Your task to perform on an android device: turn notification dots on Image 0: 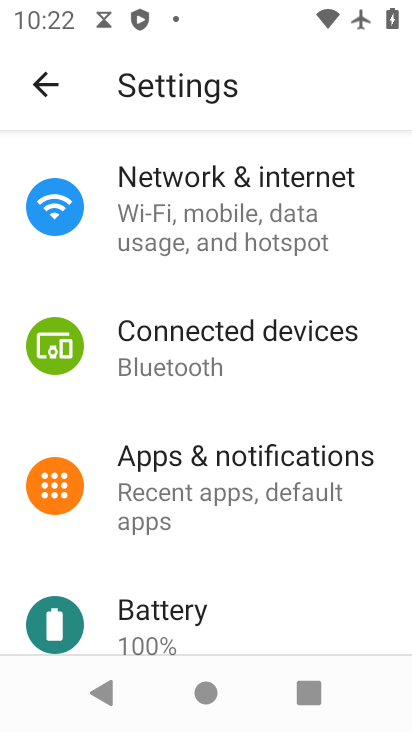
Step 0: click (240, 484)
Your task to perform on an android device: turn notification dots on Image 1: 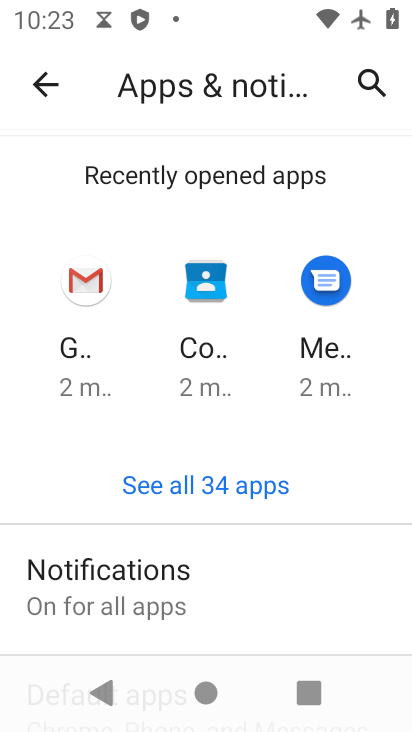
Step 1: click (153, 573)
Your task to perform on an android device: turn notification dots on Image 2: 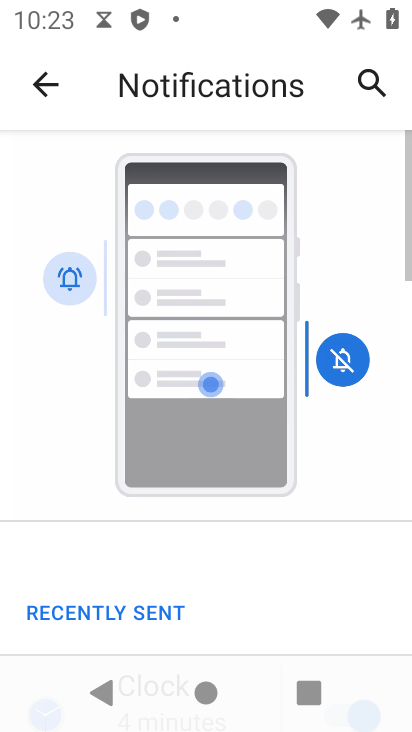
Step 2: drag from (281, 605) to (269, 150)
Your task to perform on an android device: turn notification dots on Image 3: 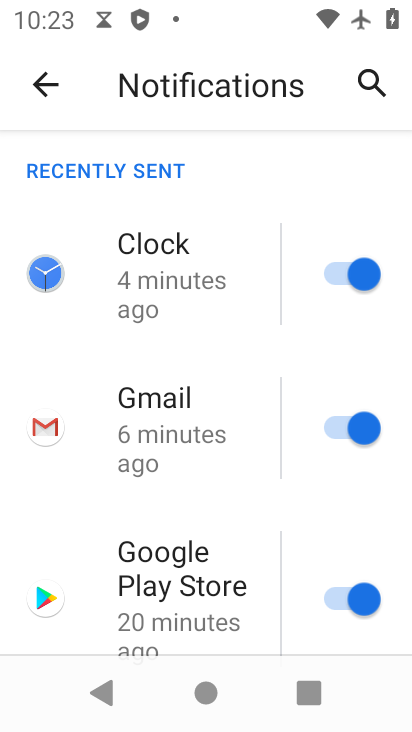
Step 3: drag from (197, 598) to (226, 177)
Your task to perform on an android device: turn notification dots on Image 4: 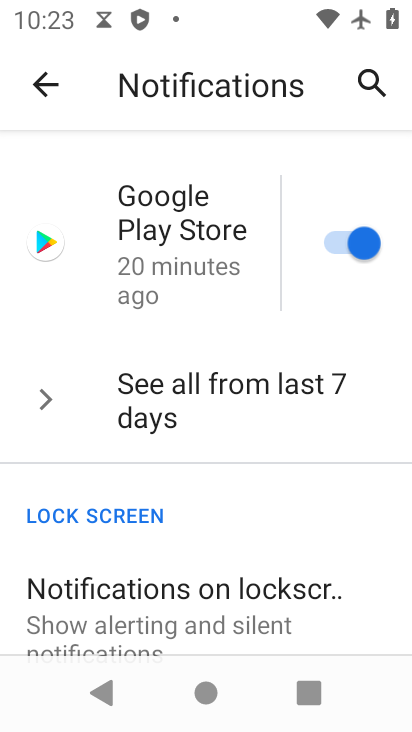
Step 4: drag from (192, 551) to (240, 170)
Your task to perform on an android device: turn notification dots on Image 5: 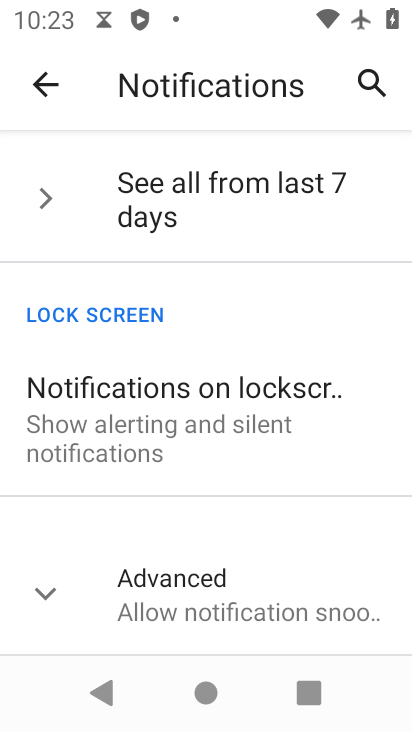
Step 5: click (228, 612)
Your task to perform on an android device: turn notification dots on Image 6: 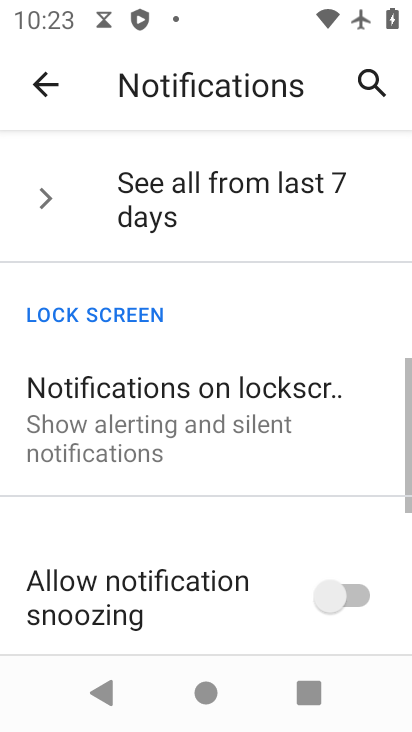
Step 6: task complete